Your task to perform on an android device: turn on priority inbox in the gmail app Image 0: 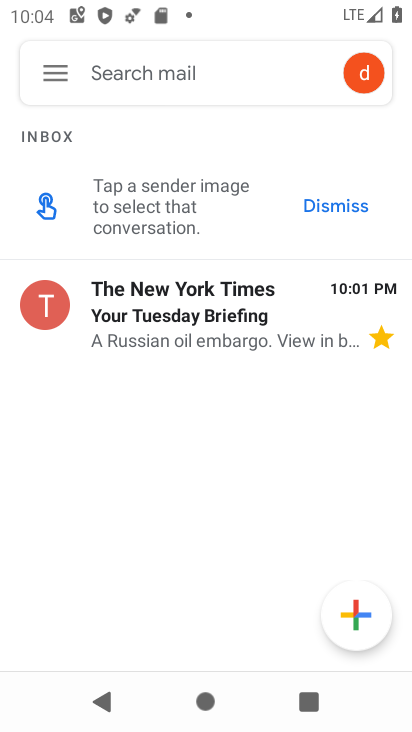
Step 0: click (65, 70)
Your task to perform on an android device: turn on priority inbox in the gmail app Image 1: 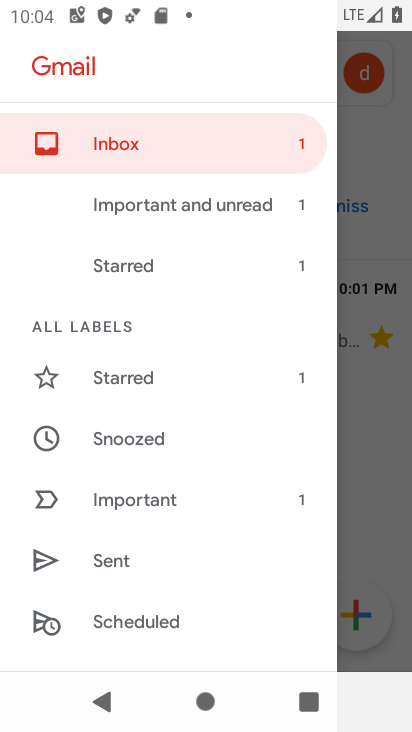
Step 1: drag from (174, 544) to (241, 0)
Your task to perform on an android device: turn on priority inbox in the gmail app Image 2: 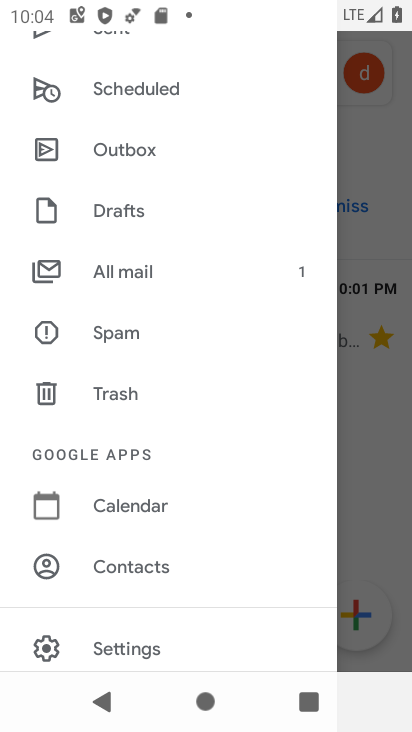
Step 2: click (176, 656)
Your task to perform on an android device: turn on priority inbox in the gmail app Image 3: 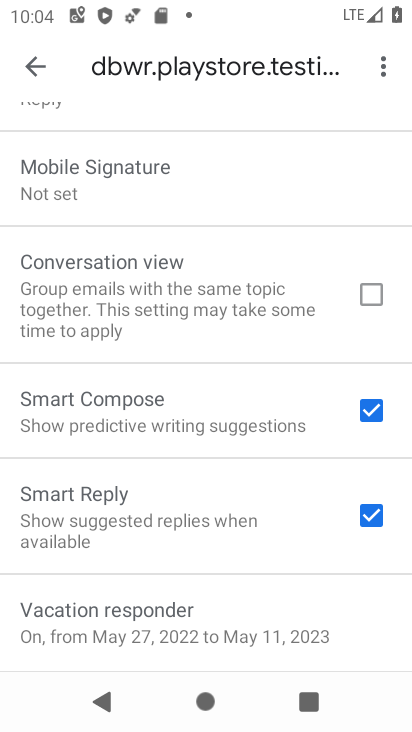
Step 3: task complete